Your task to perform on an android device: Open settings on Google Maps Image 0: 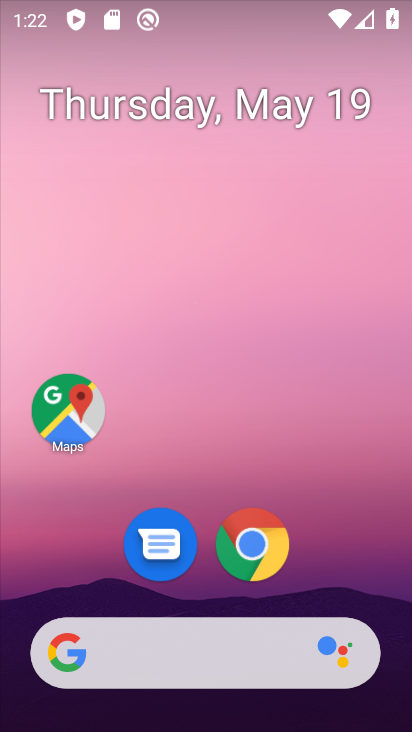
Step 0: drag from (240, 582) to (278, 122)
Your task to perform on an android device: Open settings on Google Maps Image 1: 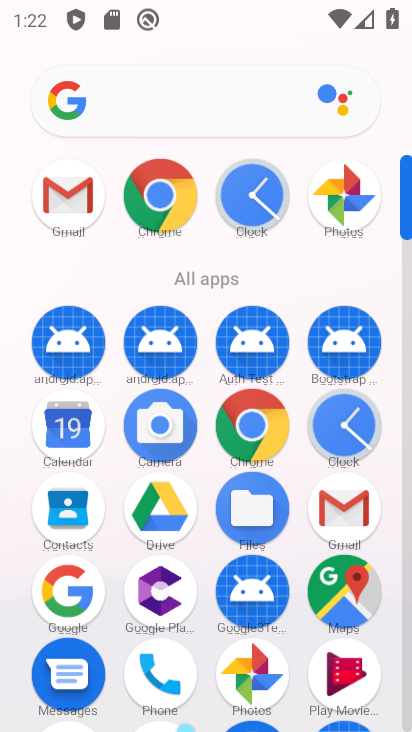
Step 1: click (339, 602)
Your task to perform on an android device: Open settings on Google Maps Image 2: 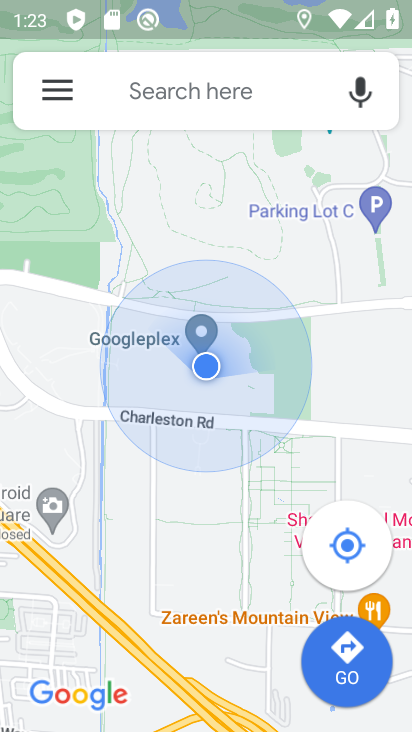
Step 2: click (53, 91)
Your task to perform on an android device: Open settings on Google Maps Image 3: 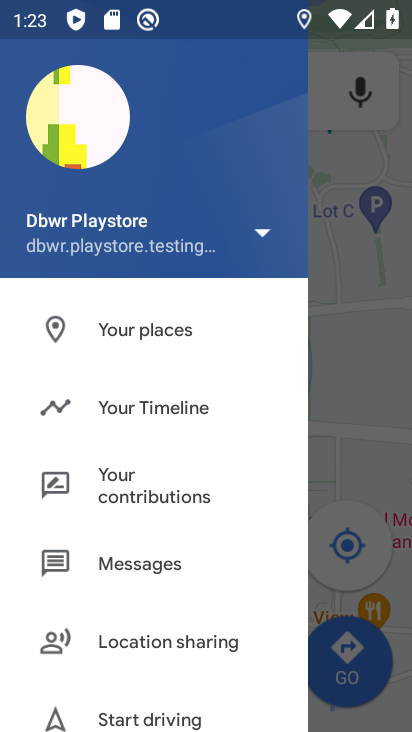
Step 3: drag from (127, 590) to (209, 140)
Your task to perform on an android device: Open settings on Google Maps Image 4: 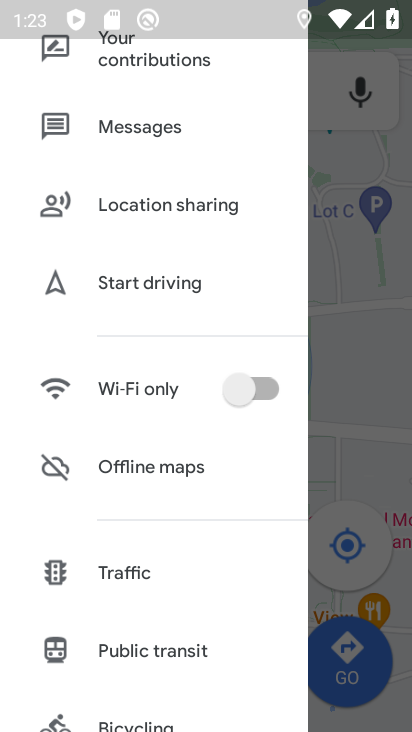
Step 4: drag from (147, 651) to (196, 241)
Your task to perform on an android device: Open settings on Google Maps Image 5: 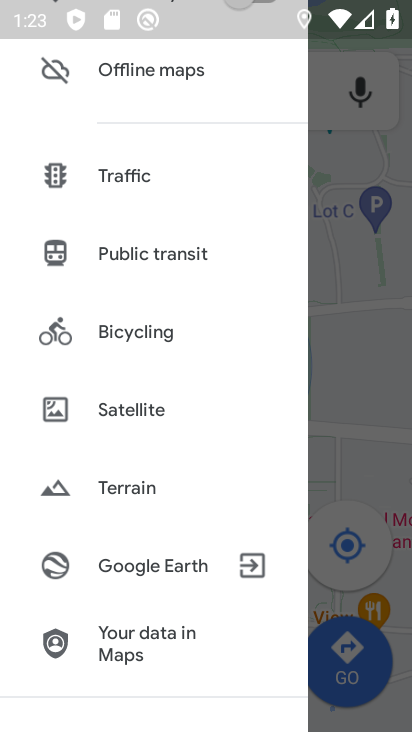
Step 5: drag from (105, 562) to (127, 425)
Your task to perform on an android device: Open settings on Google Maps Image 6: 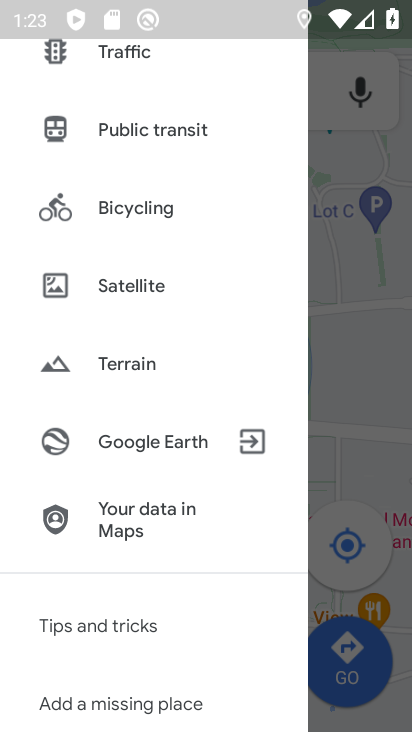
Step 6: drag from (107, 636) to (129, 363)
Your task to perform on an android device: Open settings on Google Maps Image 7: 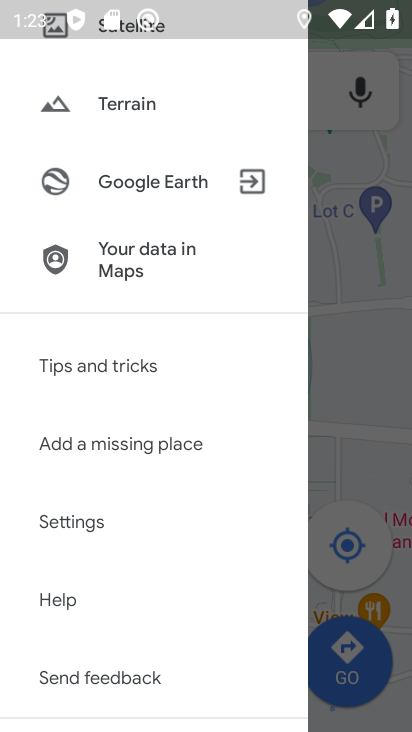
Step 7: click (81, 519)
Your task to perform on an android device: Open settings on Google Maps Image 8: 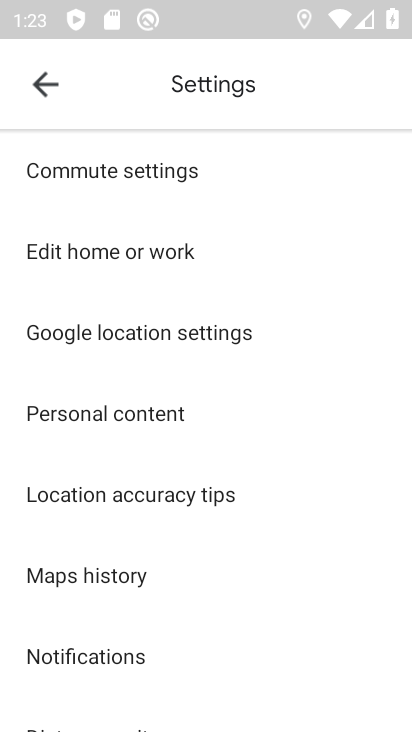
Step 8: task complete